Your task to perform on an android device: View the shopping cart on amazon. Image 0: 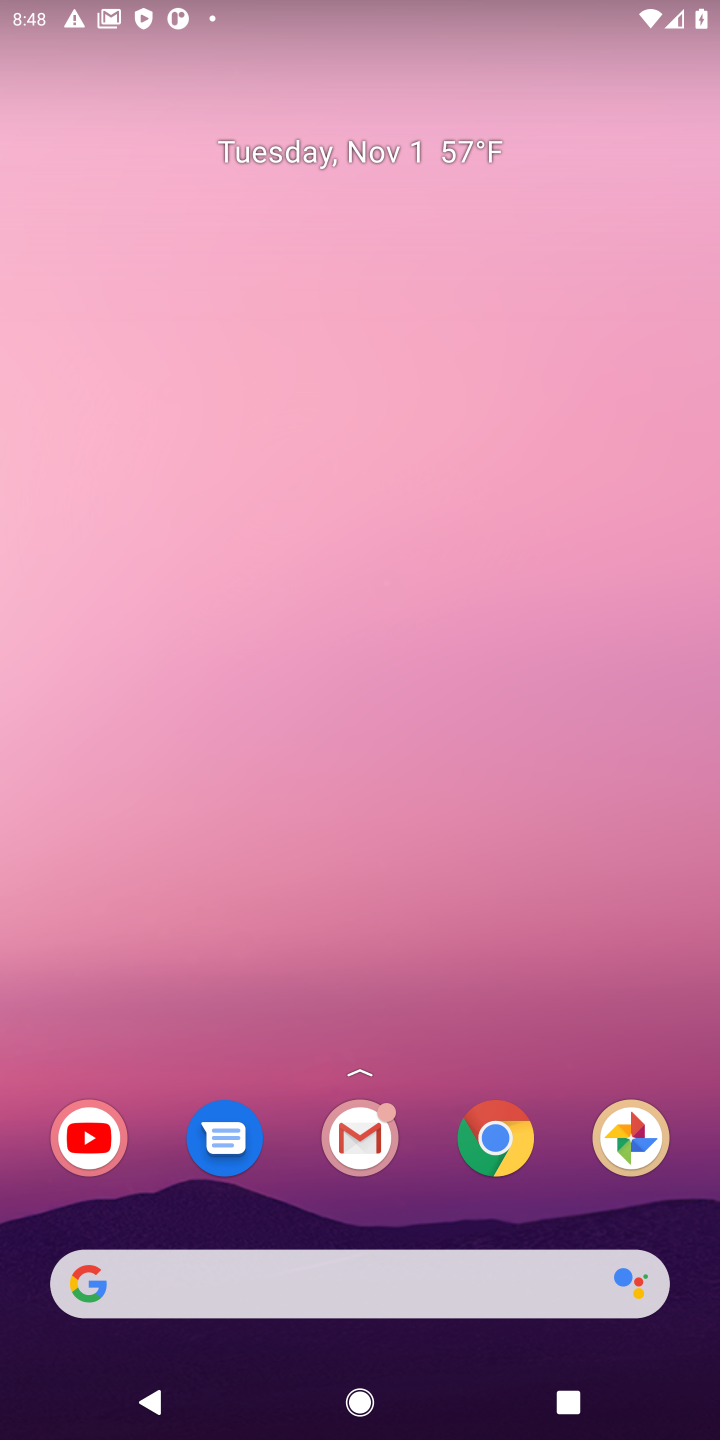
Step 0: click (507, 1154)
Your task to perform on an android device: View the shopping cart on amazon. Image 1: 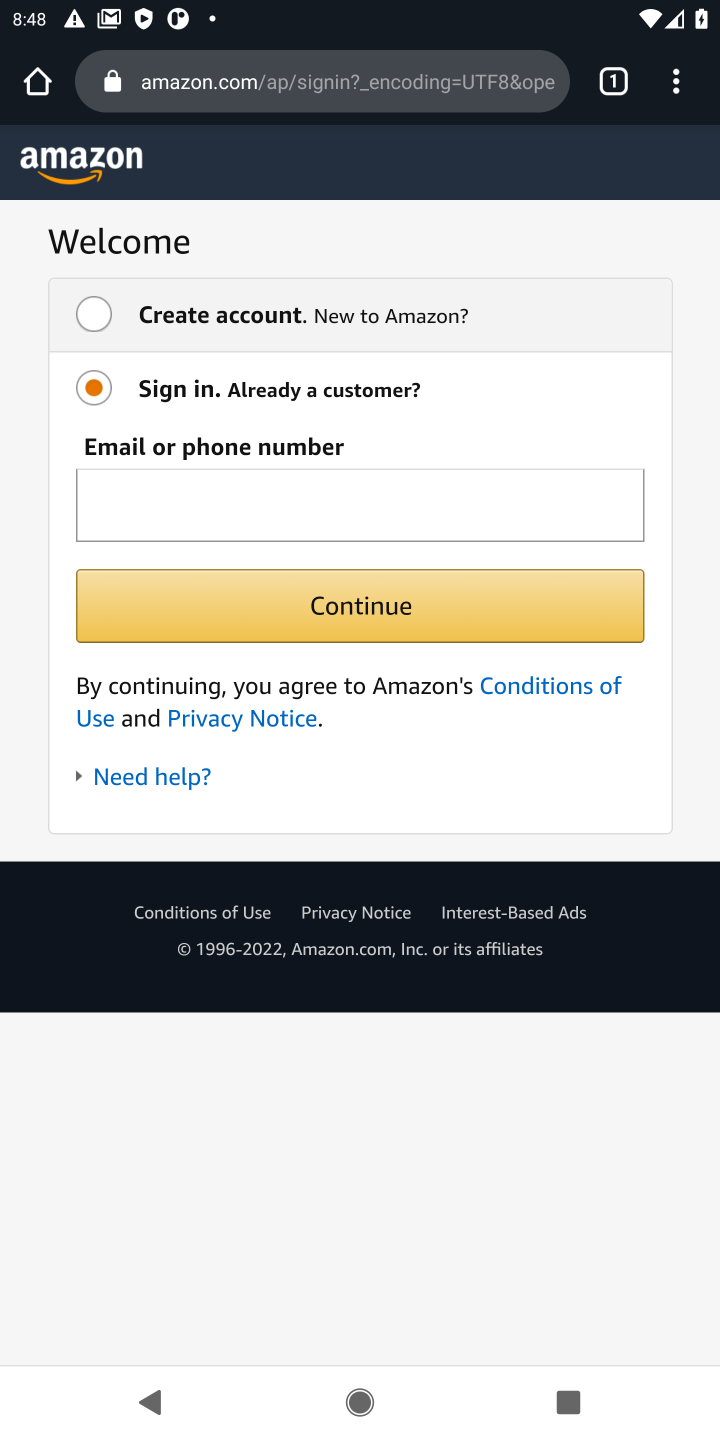
Step 1: press back button
Your task to perform on an android device: View the shopping cart on amazon. Image 2: 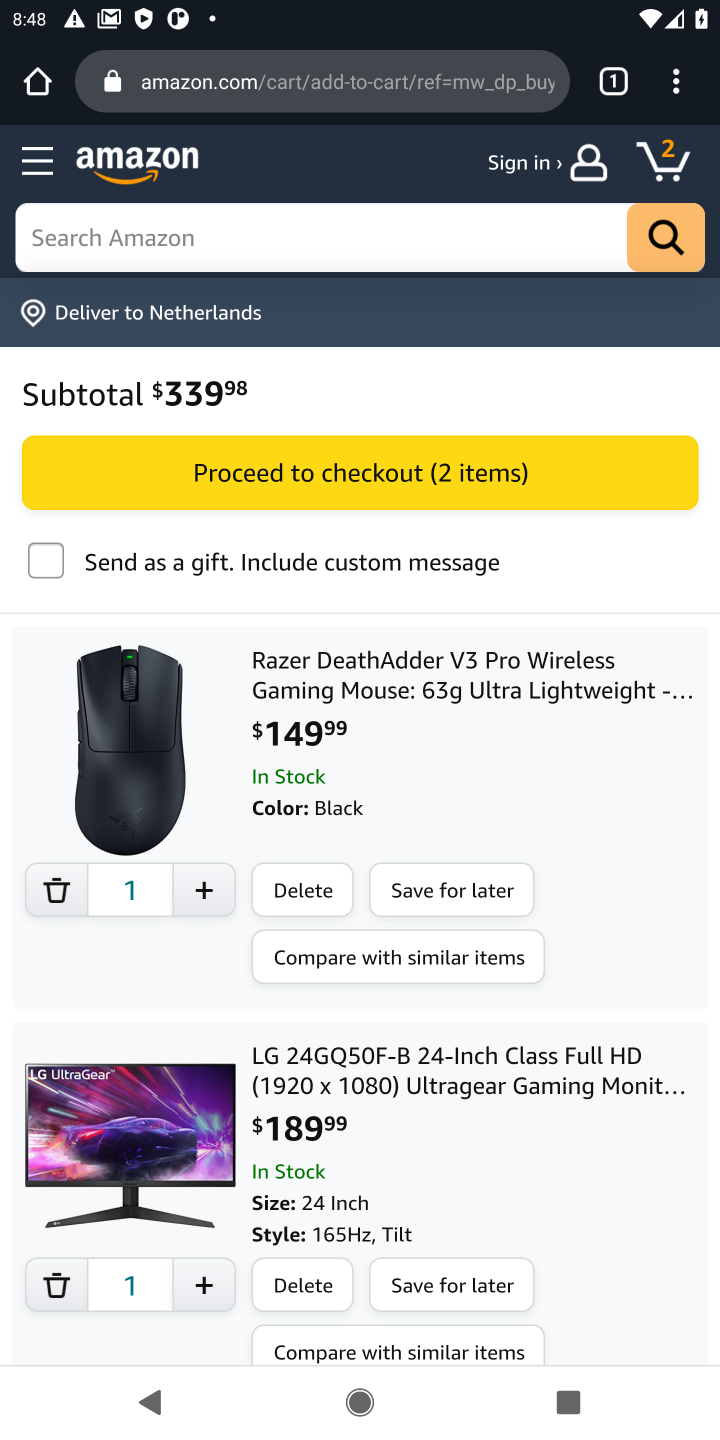
Step 2: click (656, 167)
Your task to perform on an android device: View the shopping cart on amazon. Image 3: 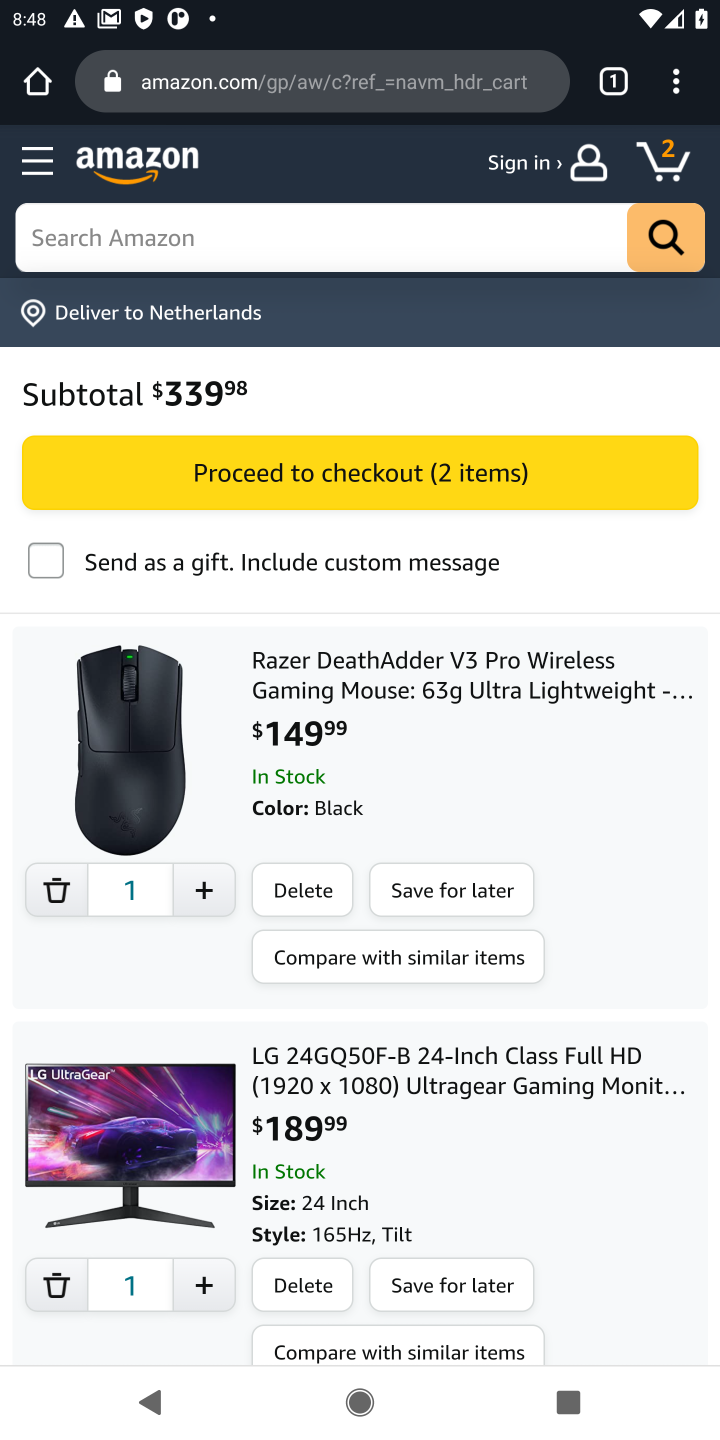
Step 3: task complete